Your task to perform on an android device: What is the recent news? Image 0: 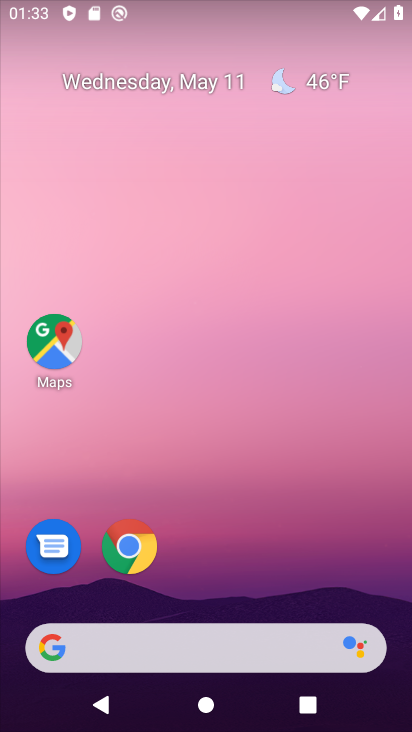
Step 0: drag from (173, 617) to (241, 219)
Your task to perform on an android device: What is the recent news? Image 1: 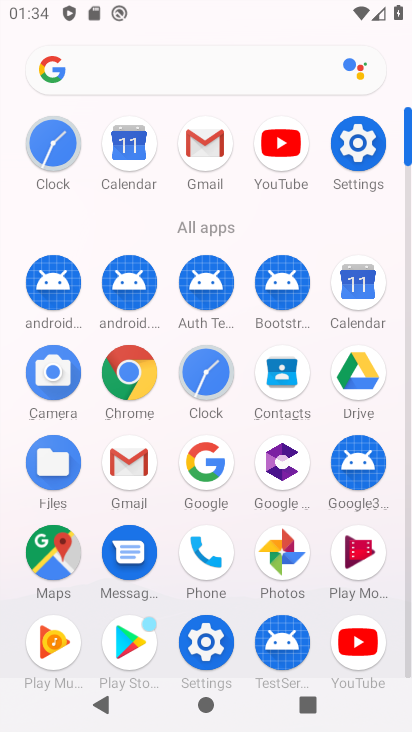
Step 1: click (254, 60)
Your task to perform on an android device: What is the recent news? Image 2: 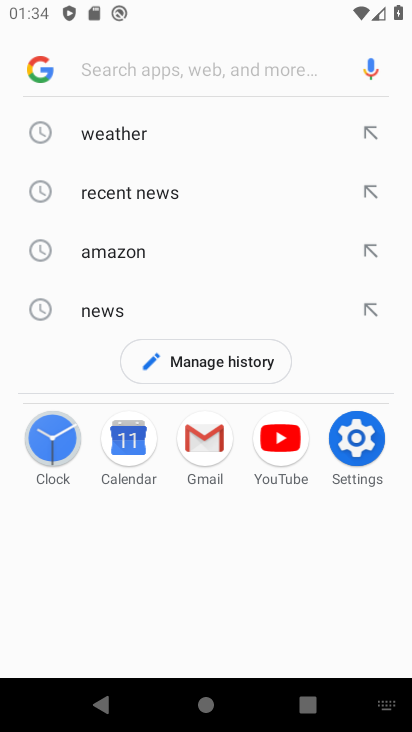
Step 2: click (172, 204)
Your task to perform on an android device: What is the recent news? Image 3: 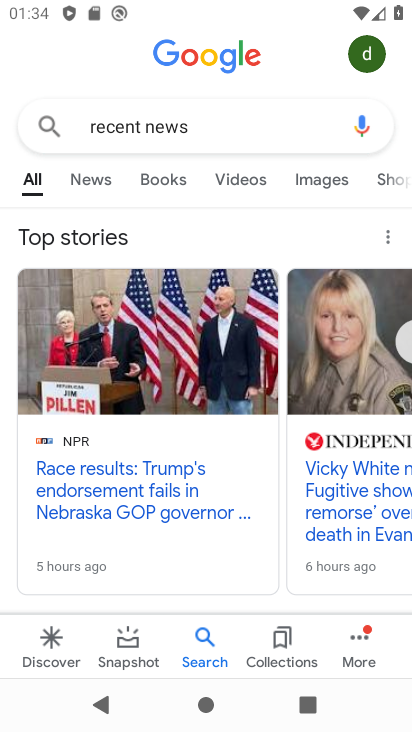
Step 3: task complete